Your task to perform on an android device: search for starred emails in the gmail app Image 0: 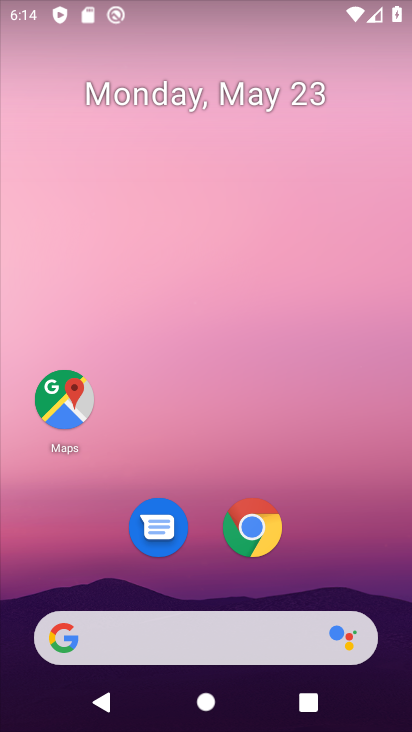
Step 0: drag from (324, 508) to (338, 151)
Your task to perform on an android device: search for starred emails in the gmail app Image 1: 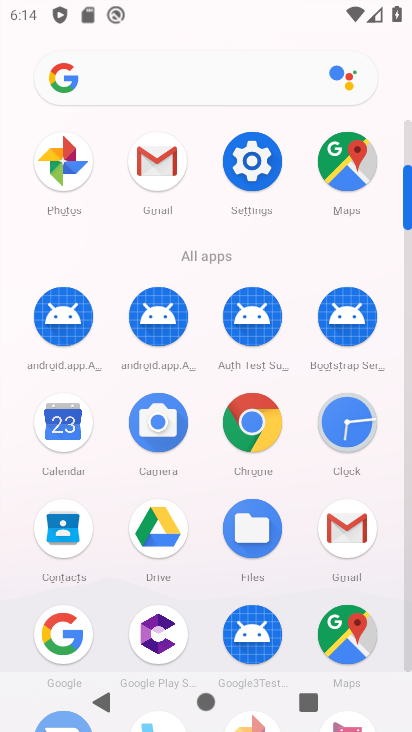
Step 1: click (164, 157)
Your task to perform on an android device: search for starred emails in the gmail app Image 2: 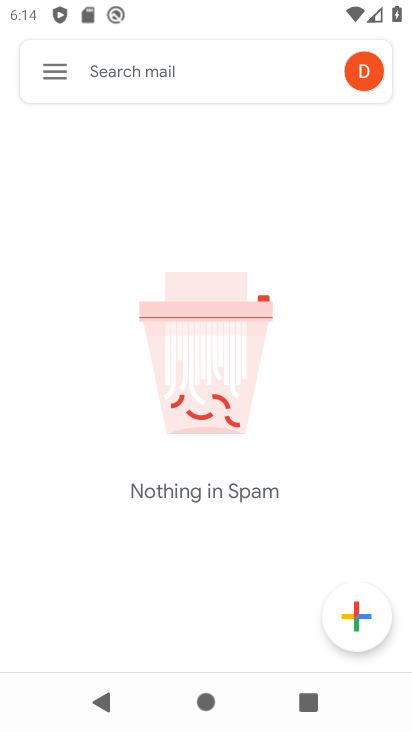
Step 2: click (60, 67)
Your task to perform on an android device: search for starred emails in the gmail app Image 3: 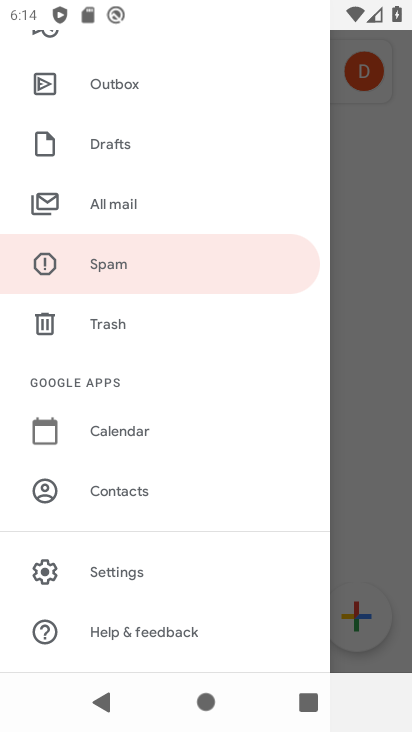
Step 3: drag from (204, 141) to (170, 501)
Your task to perform on an android device: search for starred emails in the gmail app Image 4: 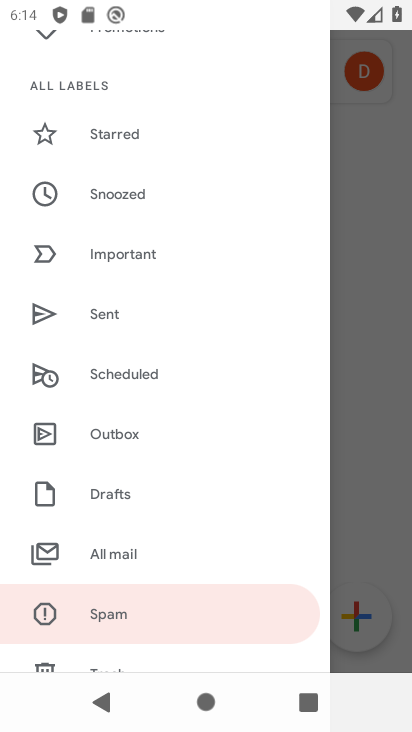
Step 4: click (108, 133)
Your task to perform on an android device: search for starred emails in the gmail app Image 5: 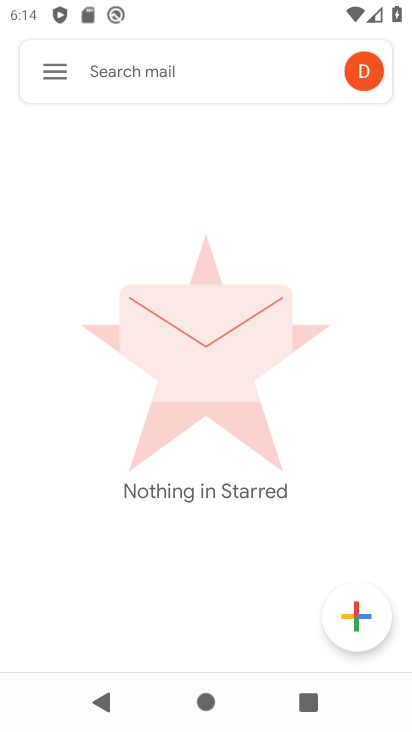
Step 5: task complete